Your task to perform on an android device: Open Yahoo.com Image 0: 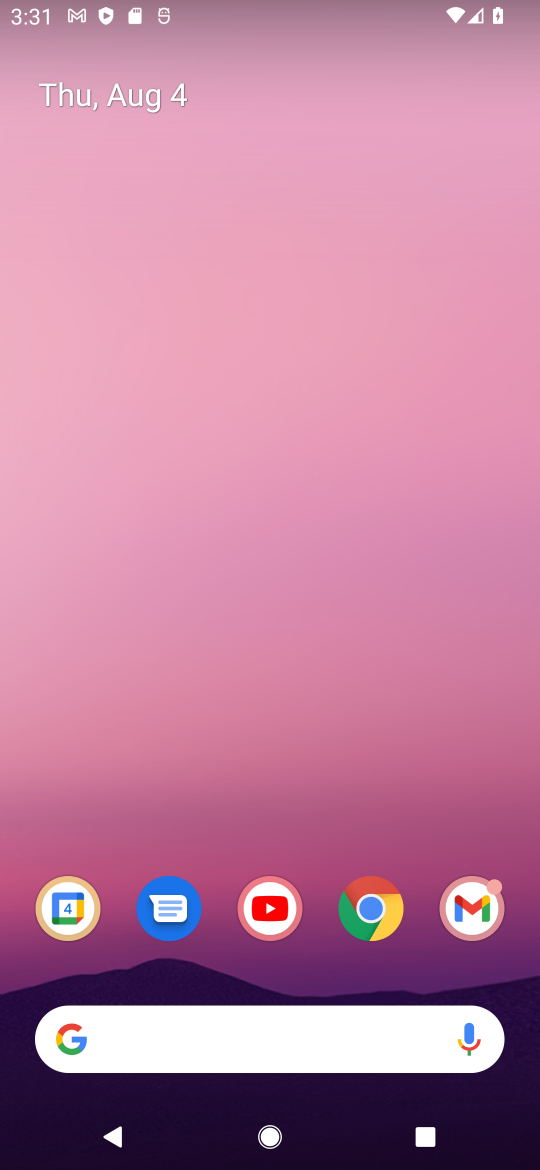
Step 0: click (363, 899)
Your task to perform on an android device: Open Yahoo.com Image 1: 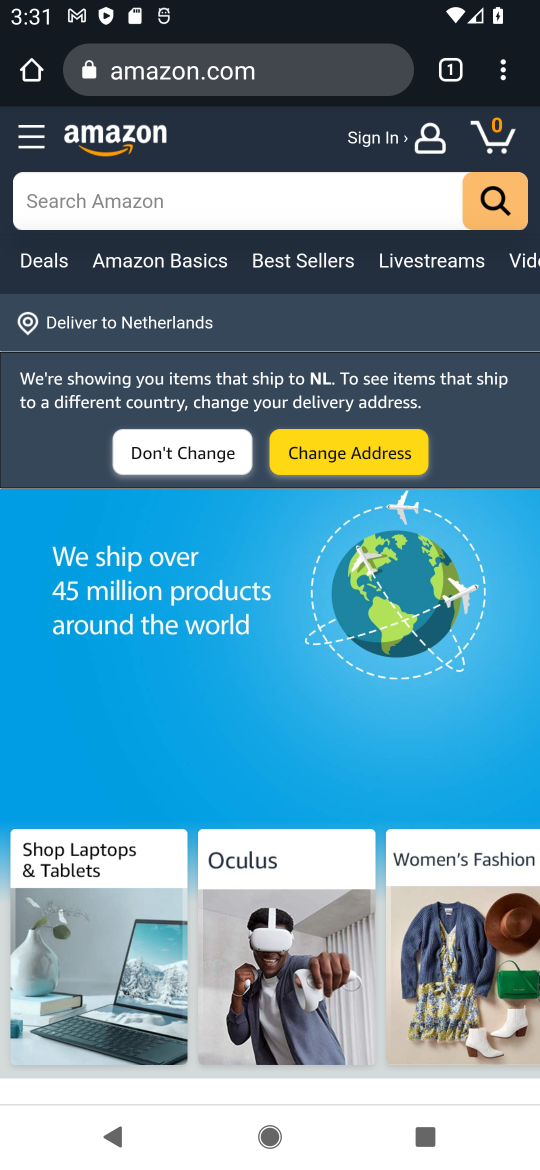
Step 1: click (282, 72)
Your task to perform on an android device: Open Yahoo.com Image 2: 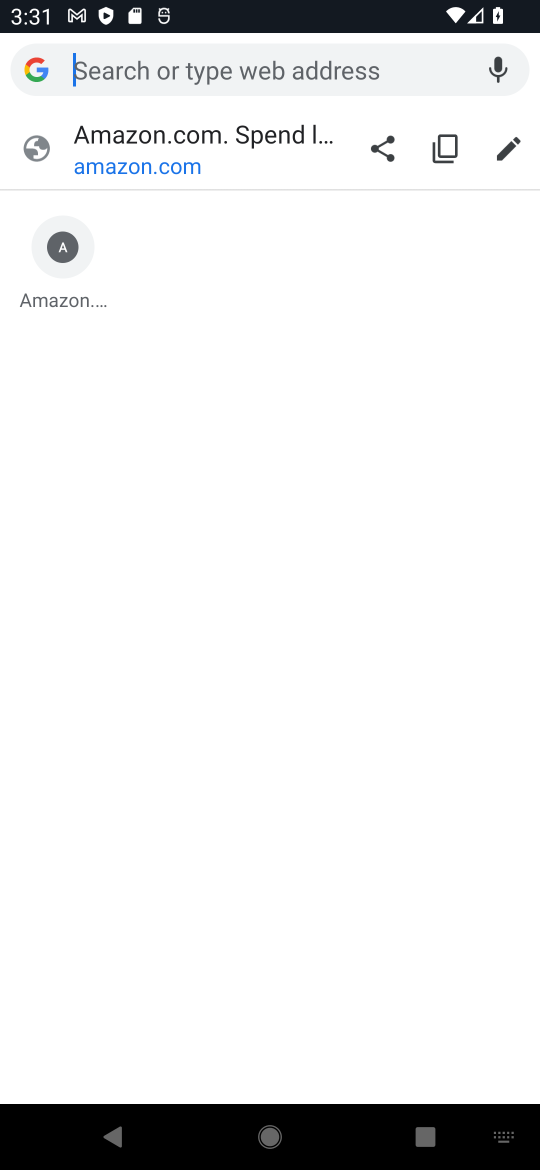
Step 2: type "yahoo.com"
Your task to perform on an android device: Open Yahoo.com Image 3: 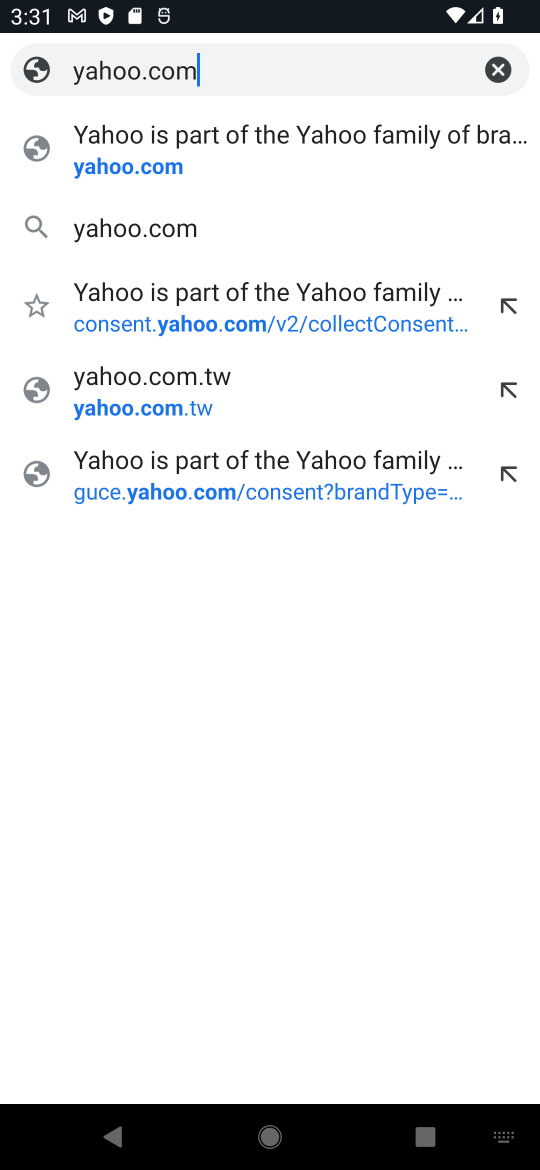
Step 3: click (309, 221)
Your task to perform on an android device: Open Yahoo.com Image 4: 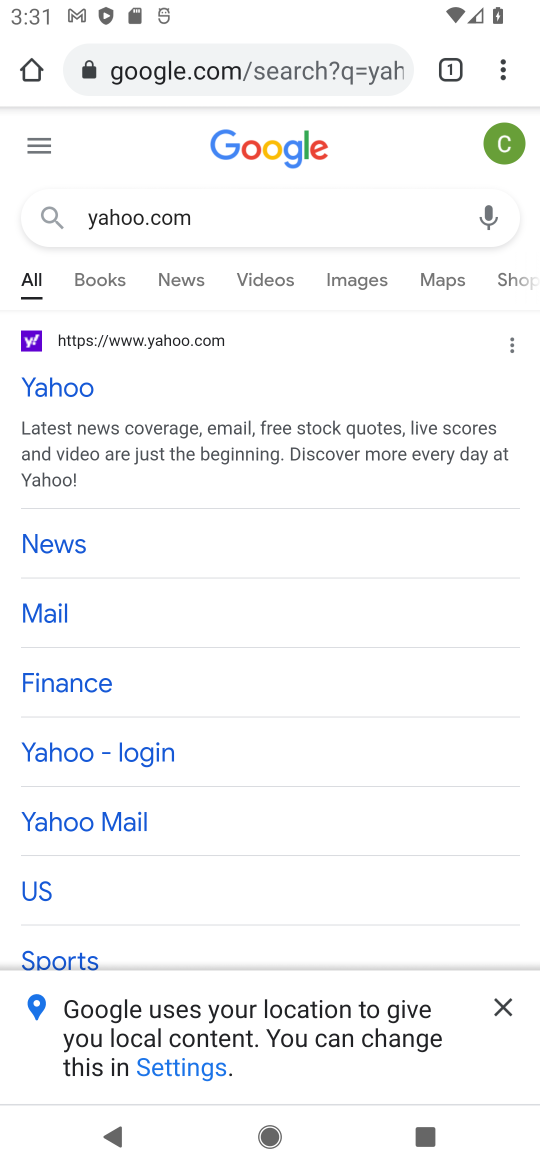
Step 4: click (45, 385)
Your task to perform on an android device: Open Yahoo.com Image 5: 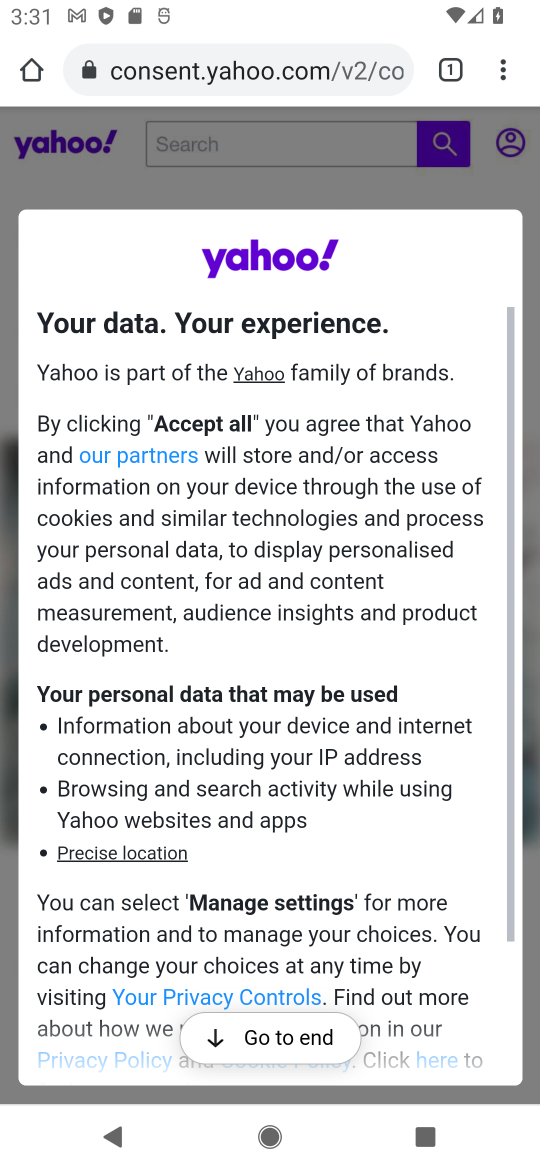
Step 5: task complete